Your task to perform on an android device: clear all cookies in the chrome app Image 0: 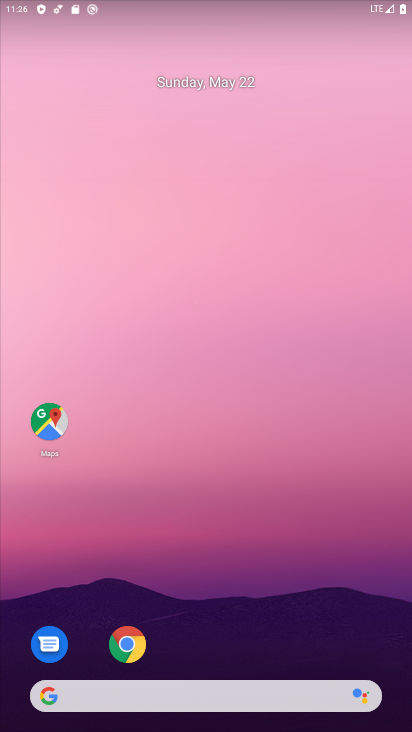
Step 0: click (130, 654)
Your task to perform on an android device: clear all cookies in the chrome app Image 1: 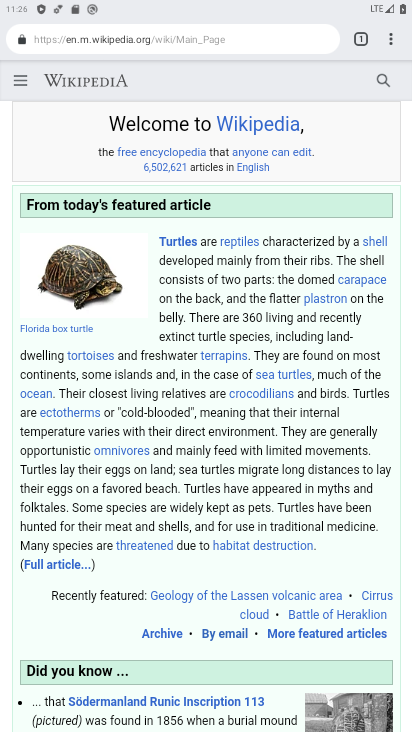
Step 1: click (395, 39)
Your task to perform on an android device: clear all cookies in the chrome app Image 2: 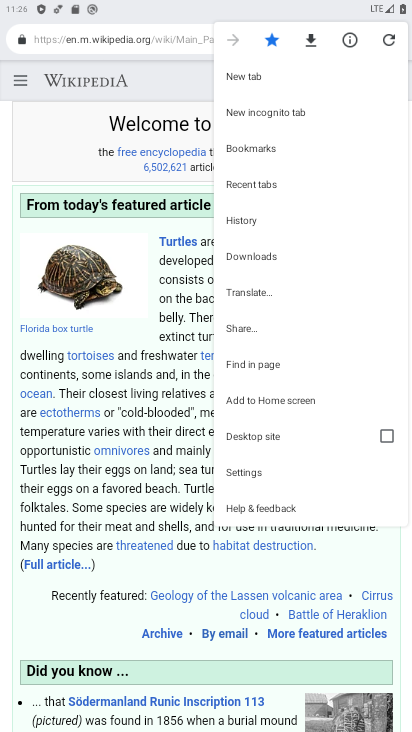
Step 2: click (258, 226)
Your task to perform on an android device: clear all cookies in the chrome app Image 3: 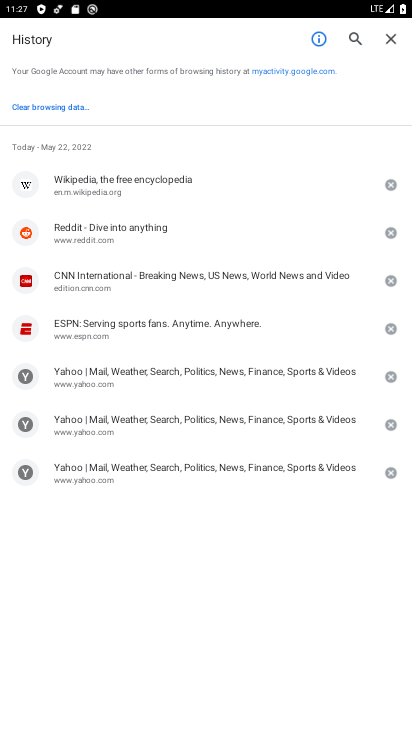
Step 3: click (71, 105)
Your task to perform on an android device: clear all cookies in the chrome app Image 4: 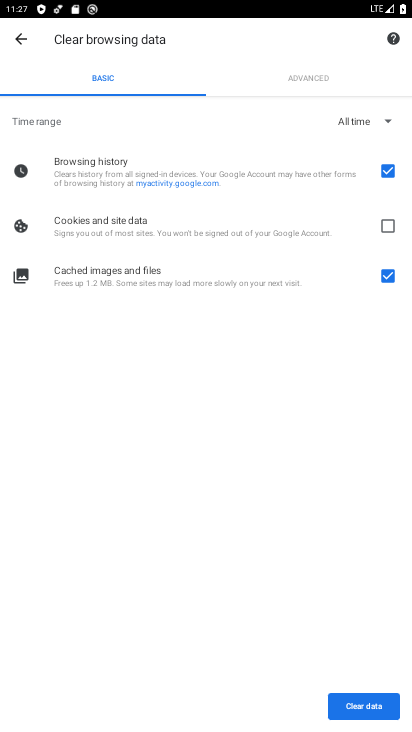
Step 4: click (391, 227)
Your task to perform on an android device: clear all cookies in the chrome app Image 5: 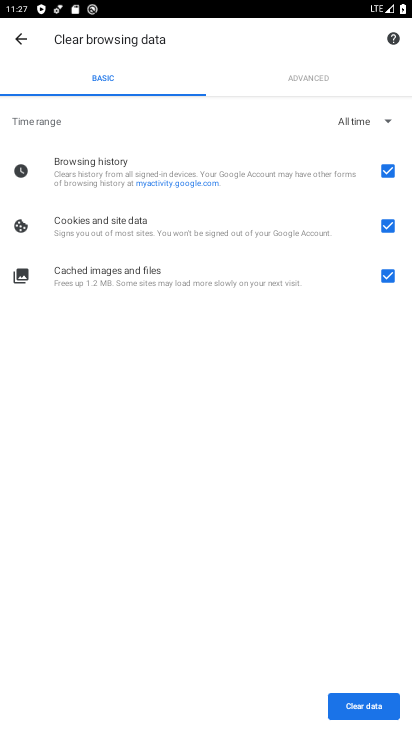
Step 5: click (392, 175)
Your task to perform on an android device: clear all cookies in the chrome app Image 6: 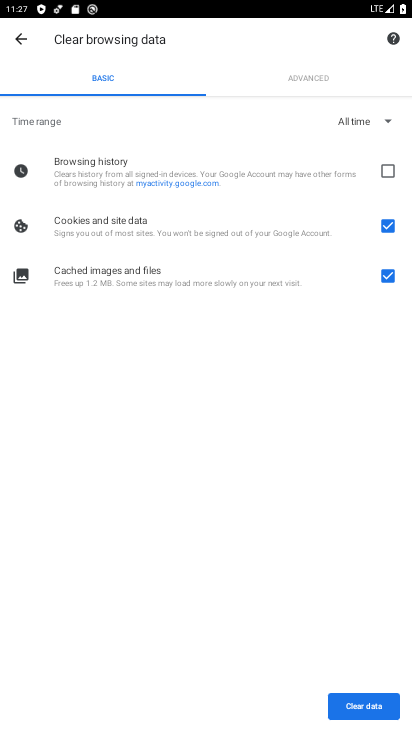
Step 6: click (360, 702)
Your task to perform on an android device: clear all cookies in the chrome app Image 7: 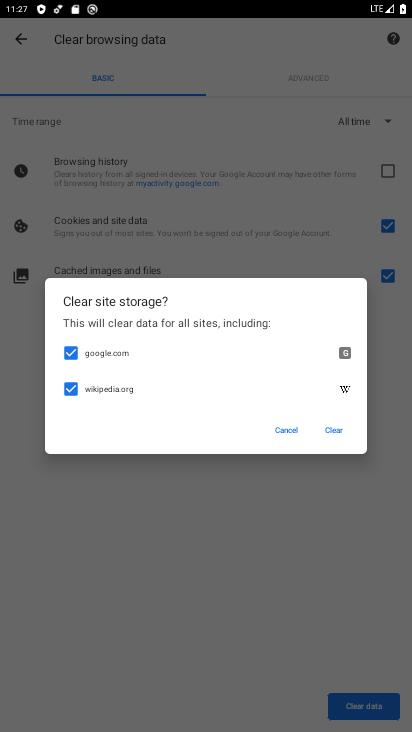
Step 7: click (336, 429)
Your task to perform on an android device: clear all cookies in the chrome app Image 8: 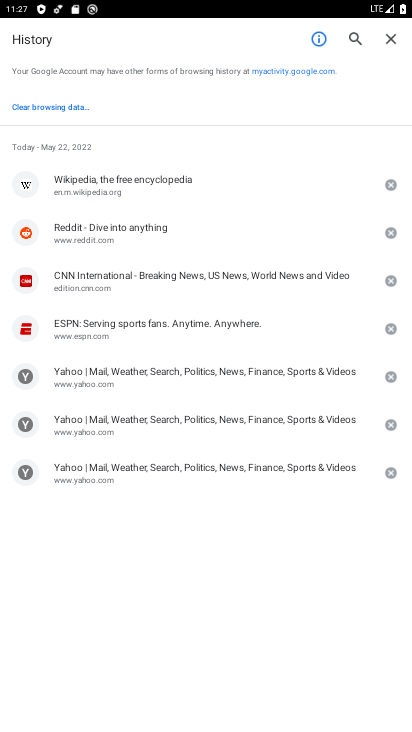
Step 8: task complete